Your task to perform on an android device: Open accessibility settings Image 0: 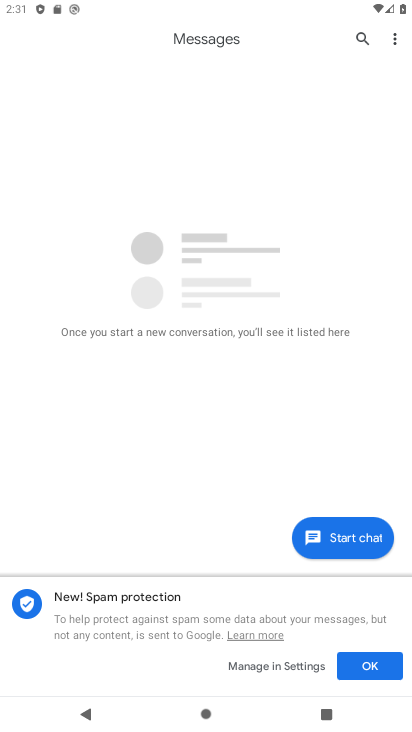
Step 0: press home button
Your task to perform on an android device: Open accessibility settings Image 1: 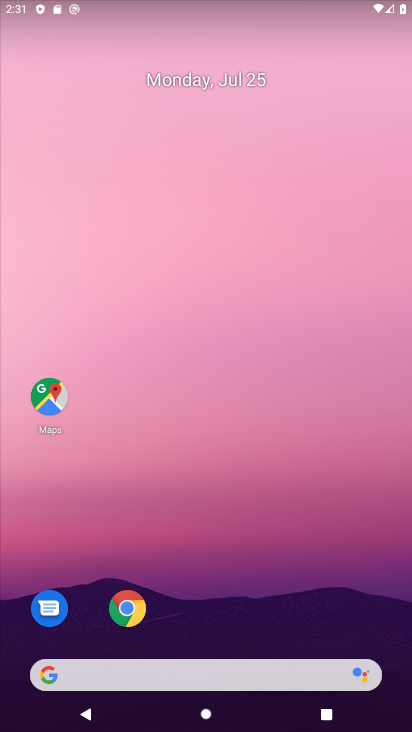
Step 1: drag from (229, 622) to (167, 87)
Your task to perform on an android device: Open accessibility settings Image 2: 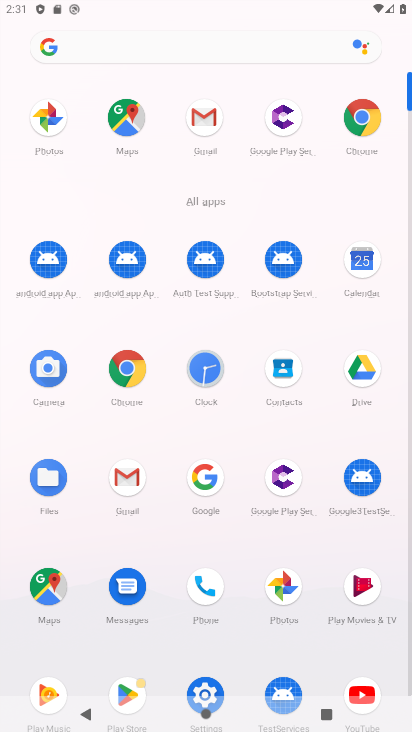
Step 2: click (205, 688)
Your task to perform on an android device: Open accessibility settings Image 3: 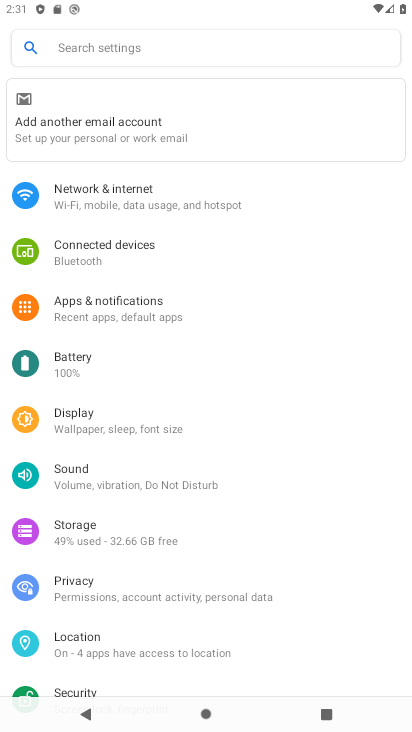
Step 3: drag from (202, 601) to (179, 162)
Your task to perform on an android device: Open accessibility settings Image 4: 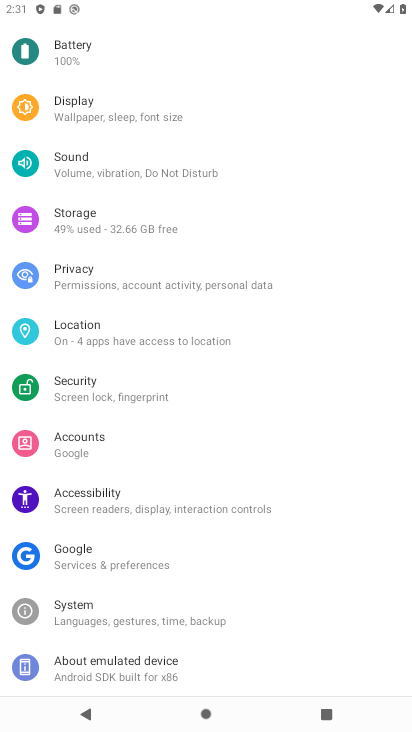
Step 4: click (202, 497)
Your task to perform on an android device: Open accessibility settings Image 5: 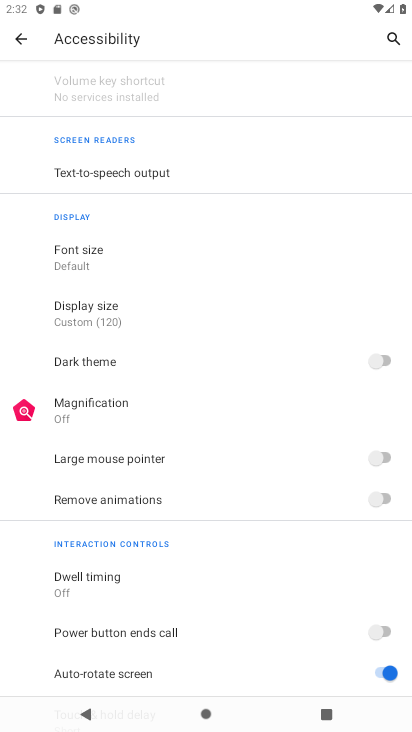
Step 5: task complete